Your task to perform on an android device: uninstall "Chime – Mobile Banking" Image 0: 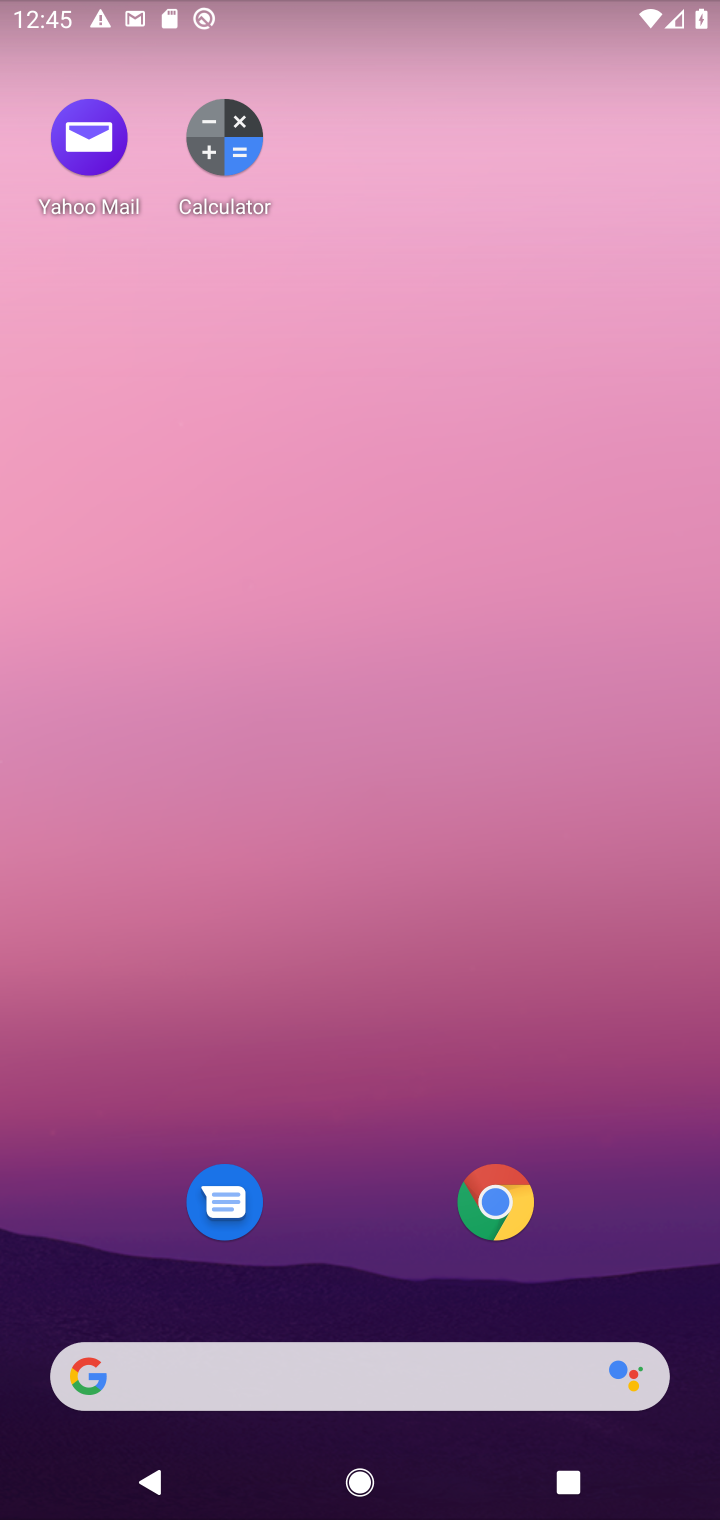
Step 0: press home button
Your task to perform on an android device: uninstall "Chime – Mobile Banking" Image 1: 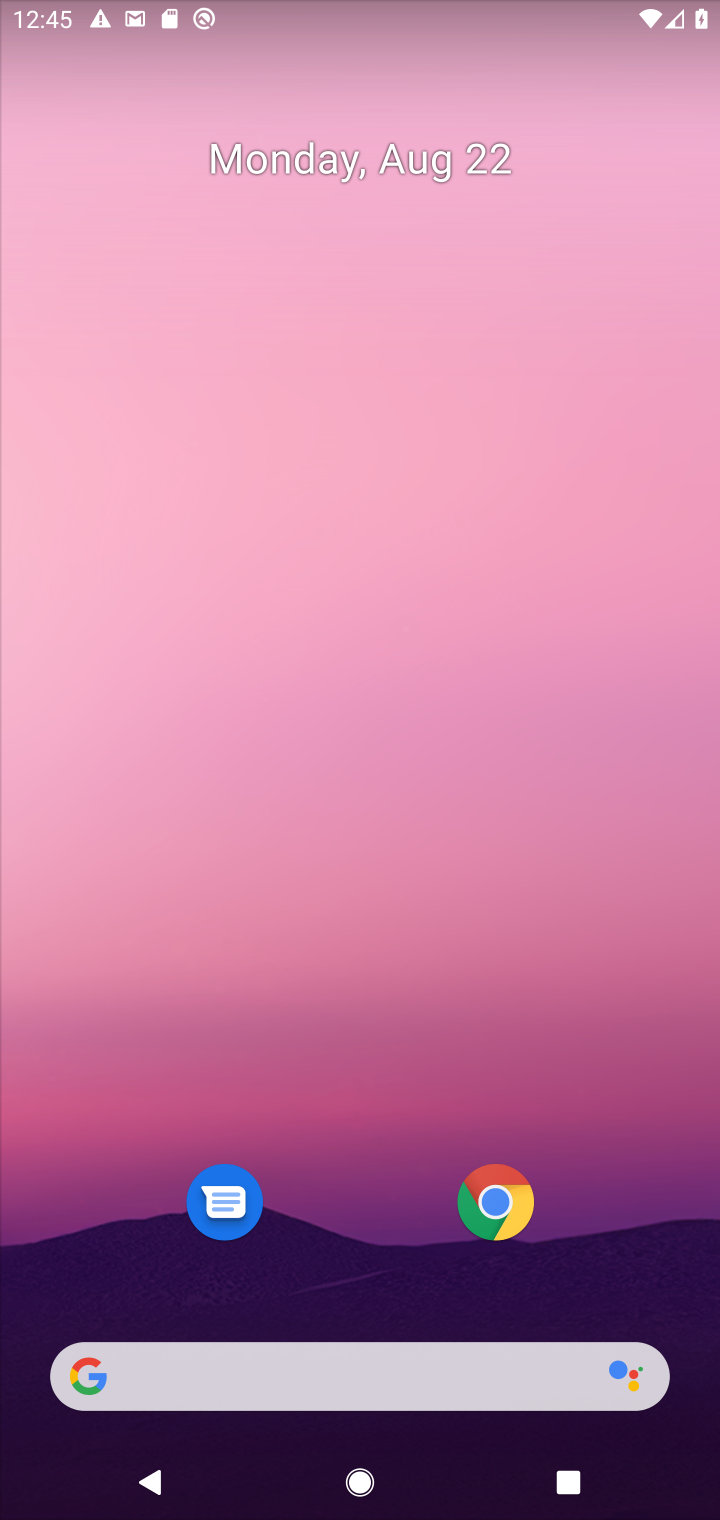
Step 1: drag from (370, 1290) to (358, 63)
Your task to perform on an android device: uninstall "Chime – Mobile Banking" Image 2: 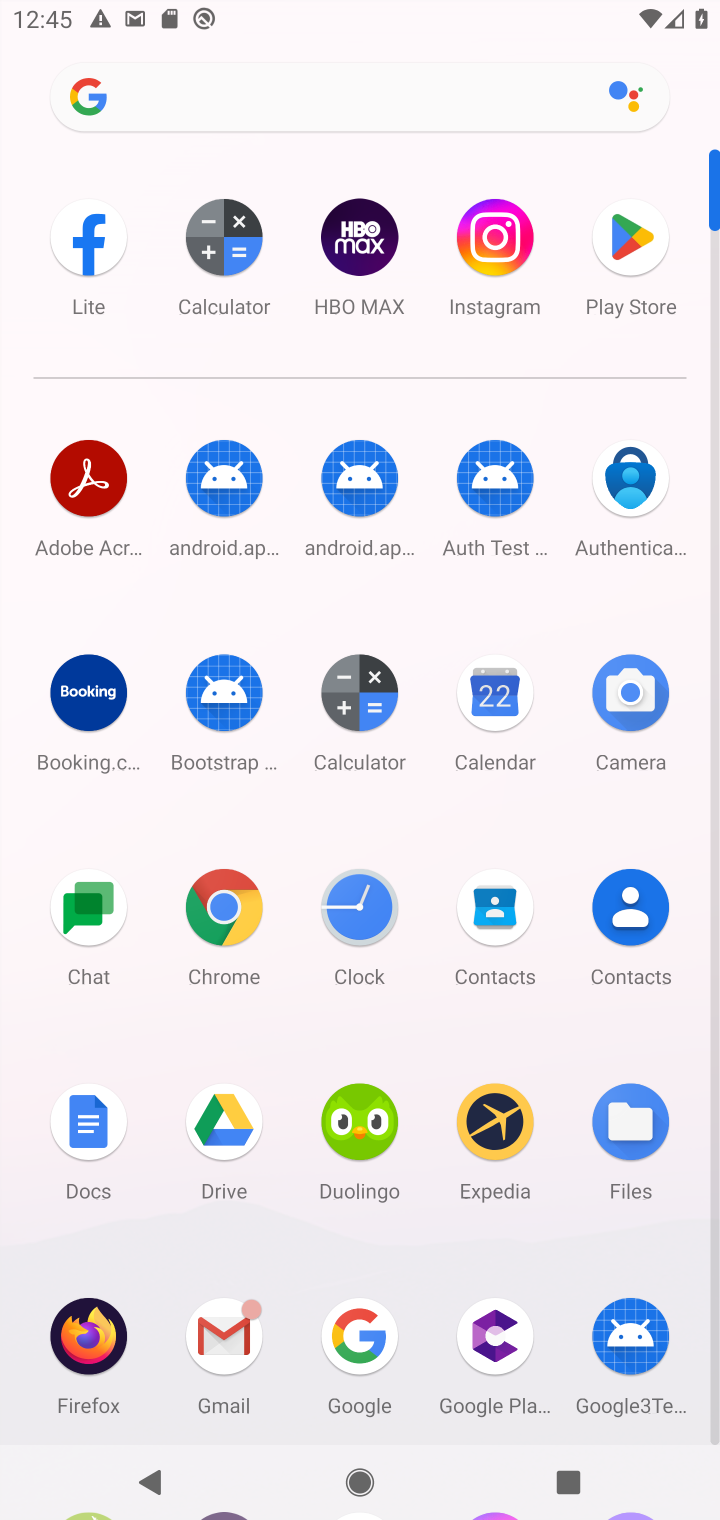
Step 2: click (636, 242)
Your task to perform on an android device: uninstall "Chime – Mobile Banking" Image 3: 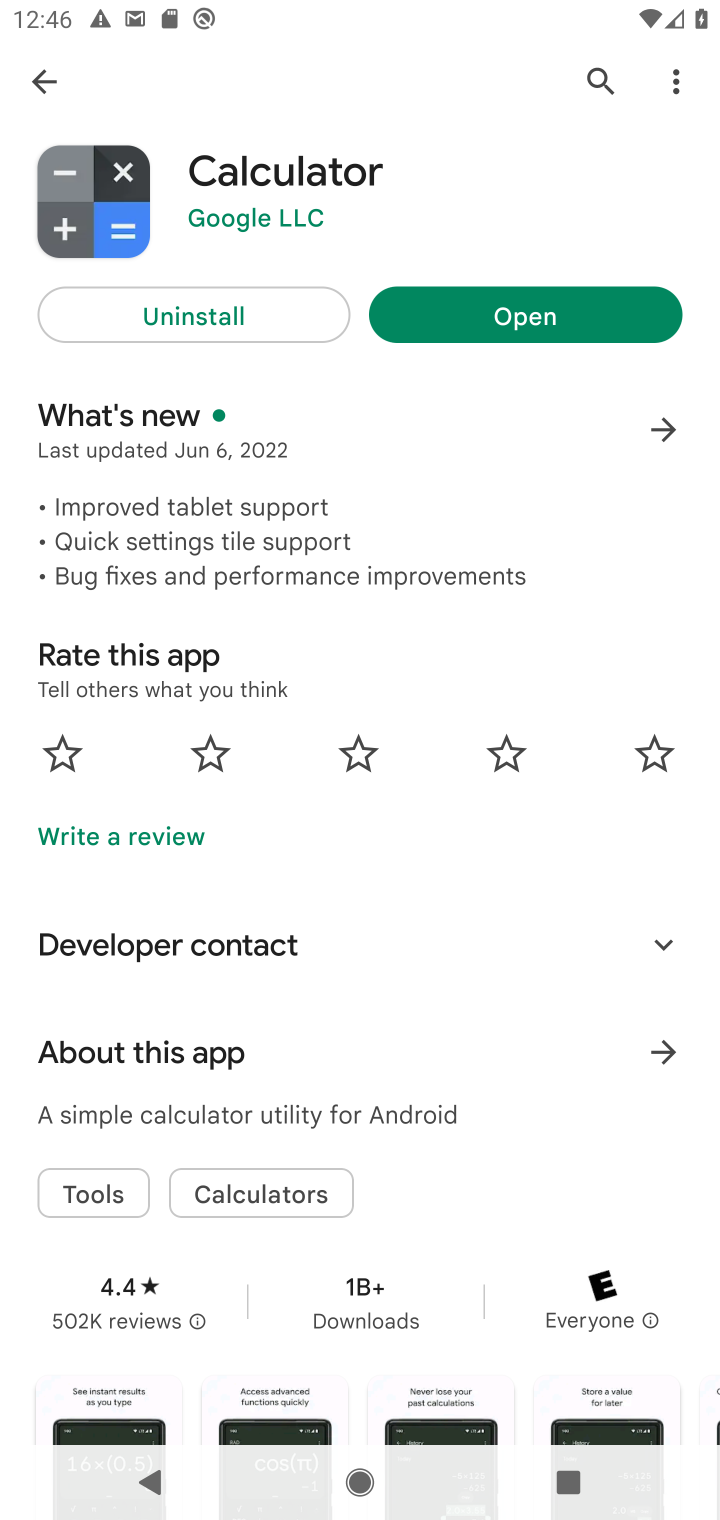
Step 3: click (583, 82)
Your task to perform on an android device: uninstall "Chime – Mobile Banking" Image 4: 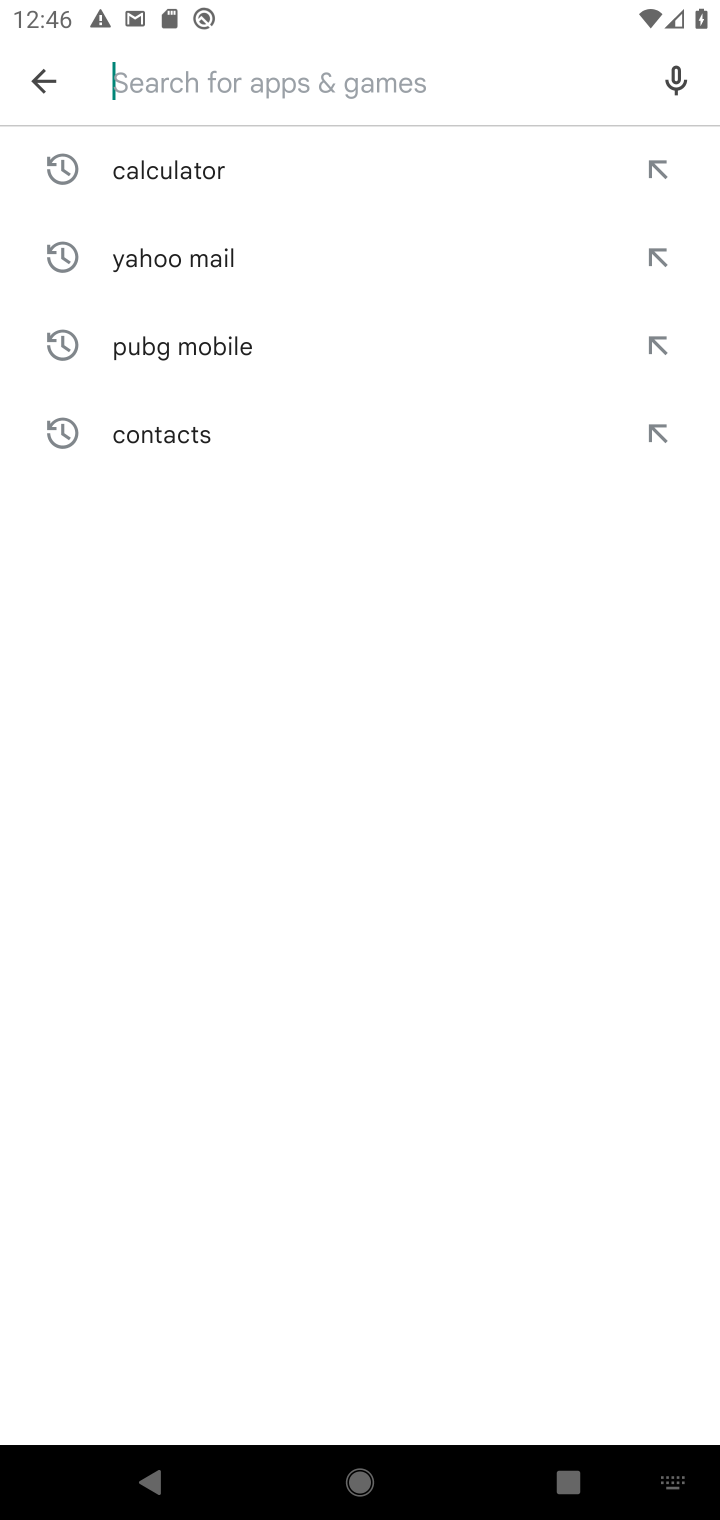
Step 4: type "Chime – Mobile Banking"
Your task to perform on an android device: uninstall "Chime – Mobile Banking" Image 5: 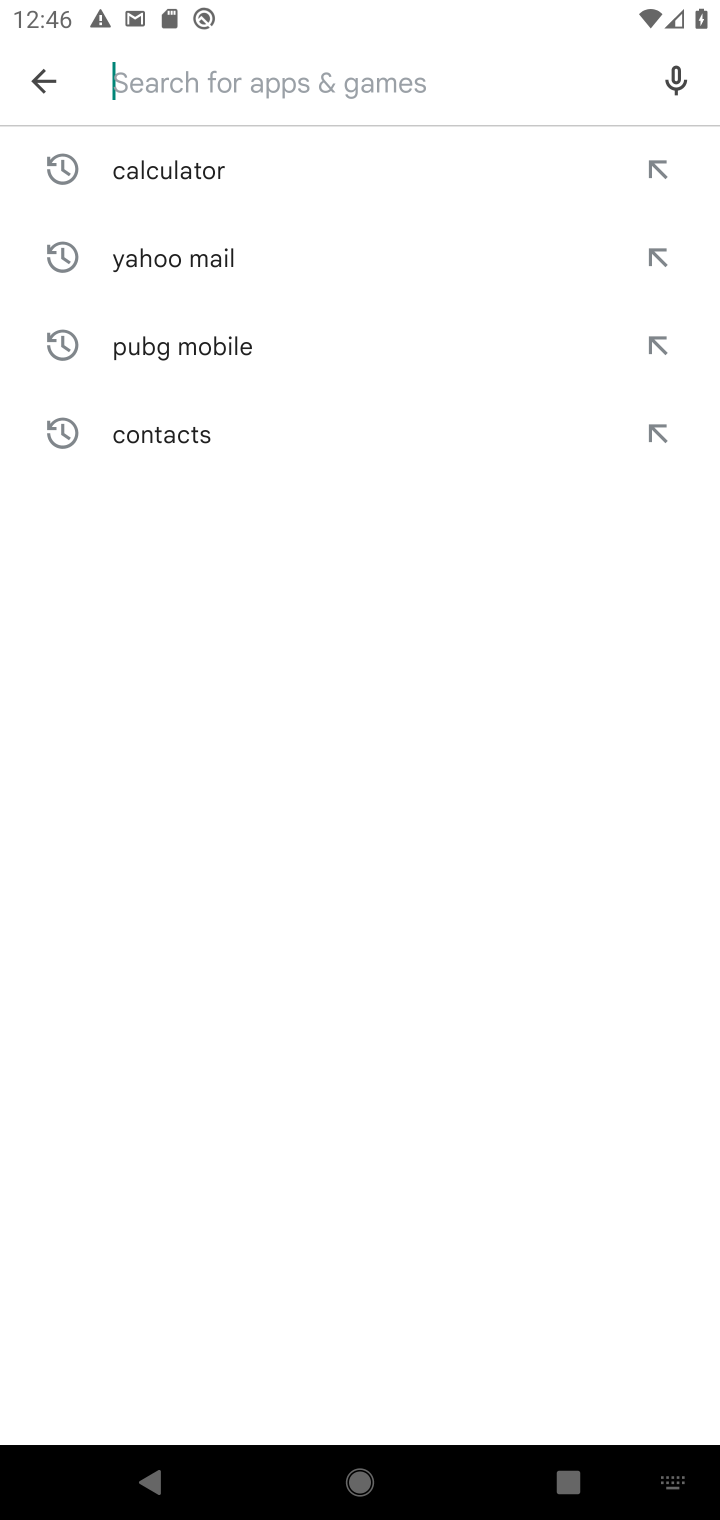
Step 5: type "Chime – Mobile Banking"
Your task to perform on an android device: uninstall "Chime – Mobile Banking" Image 6: 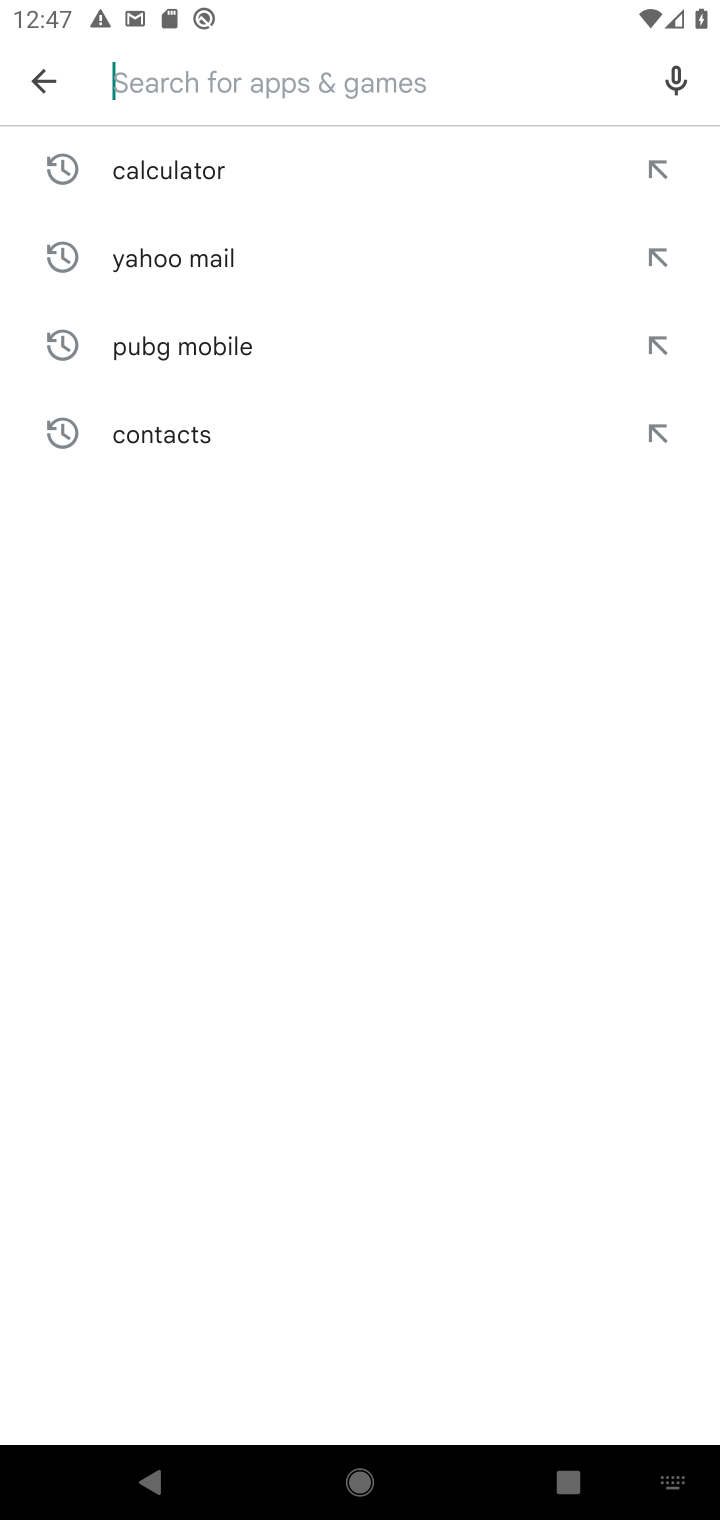
Step 6: type "Chime"
Your task to perform on an android device: uninstall "Chime – Mobile Banking" Image 7: 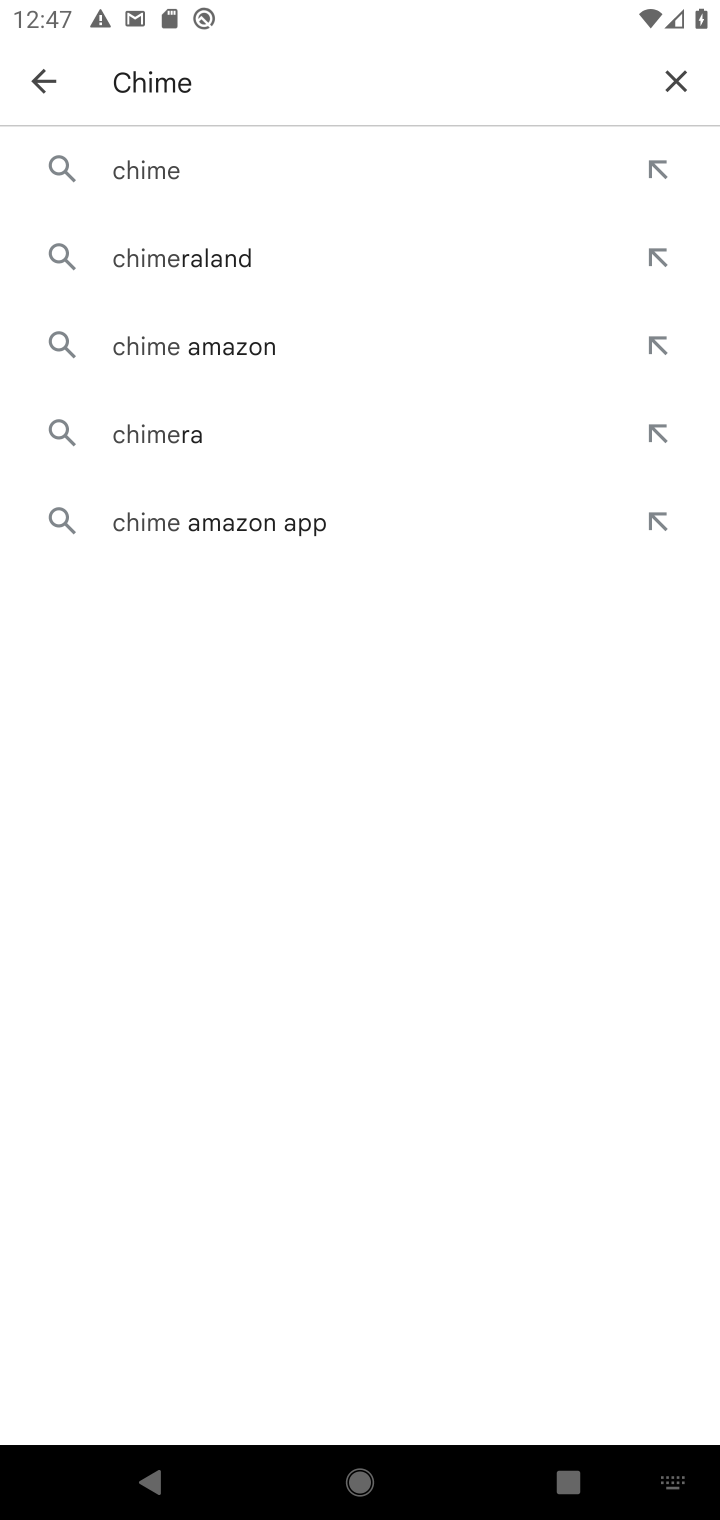
Step 7: type "– Mobile Banking"
Your task to perform on an android device: uninstall "Chime – Mobile Banking" Image 8: 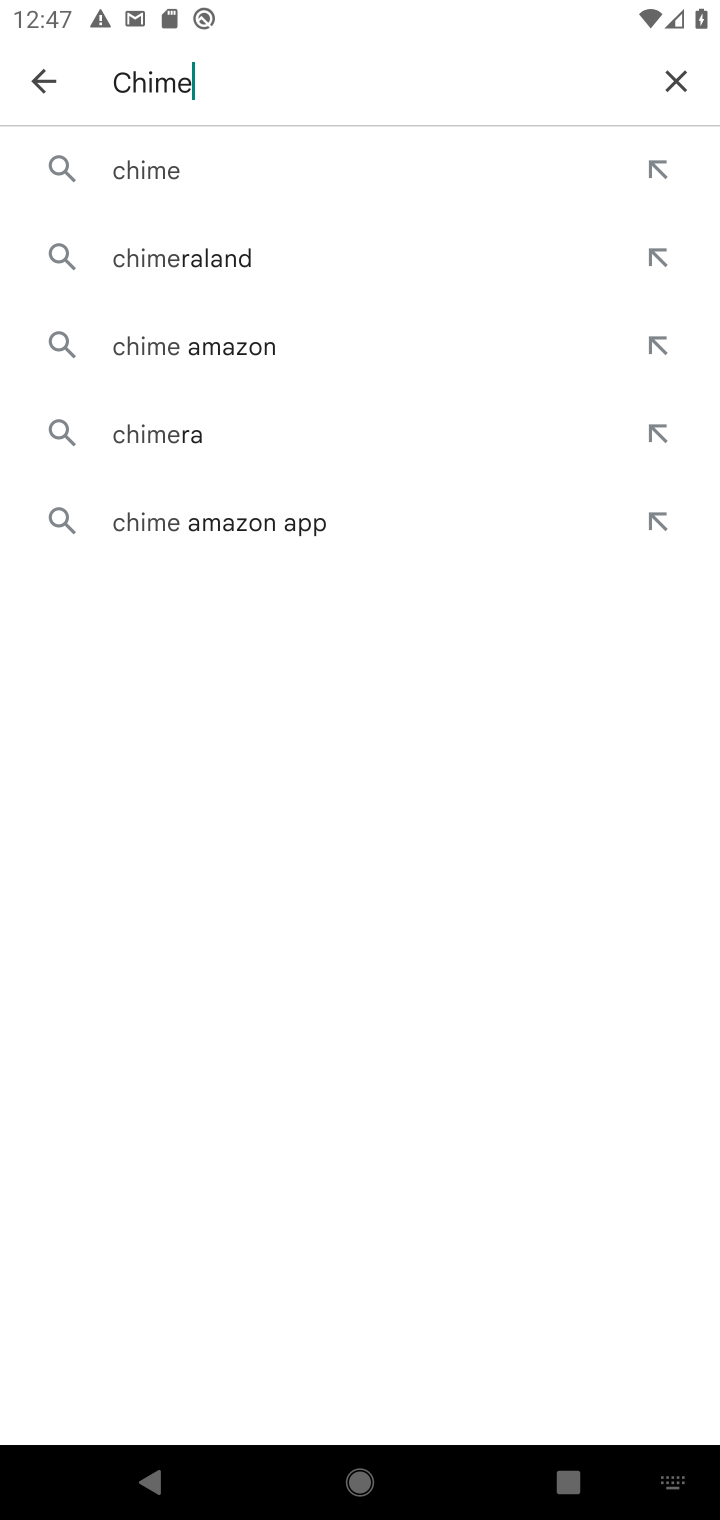
Step 8: click (151, 161)
Your task to perform on an android device: uninstall "Chime – Mobile Banking" Image 9: 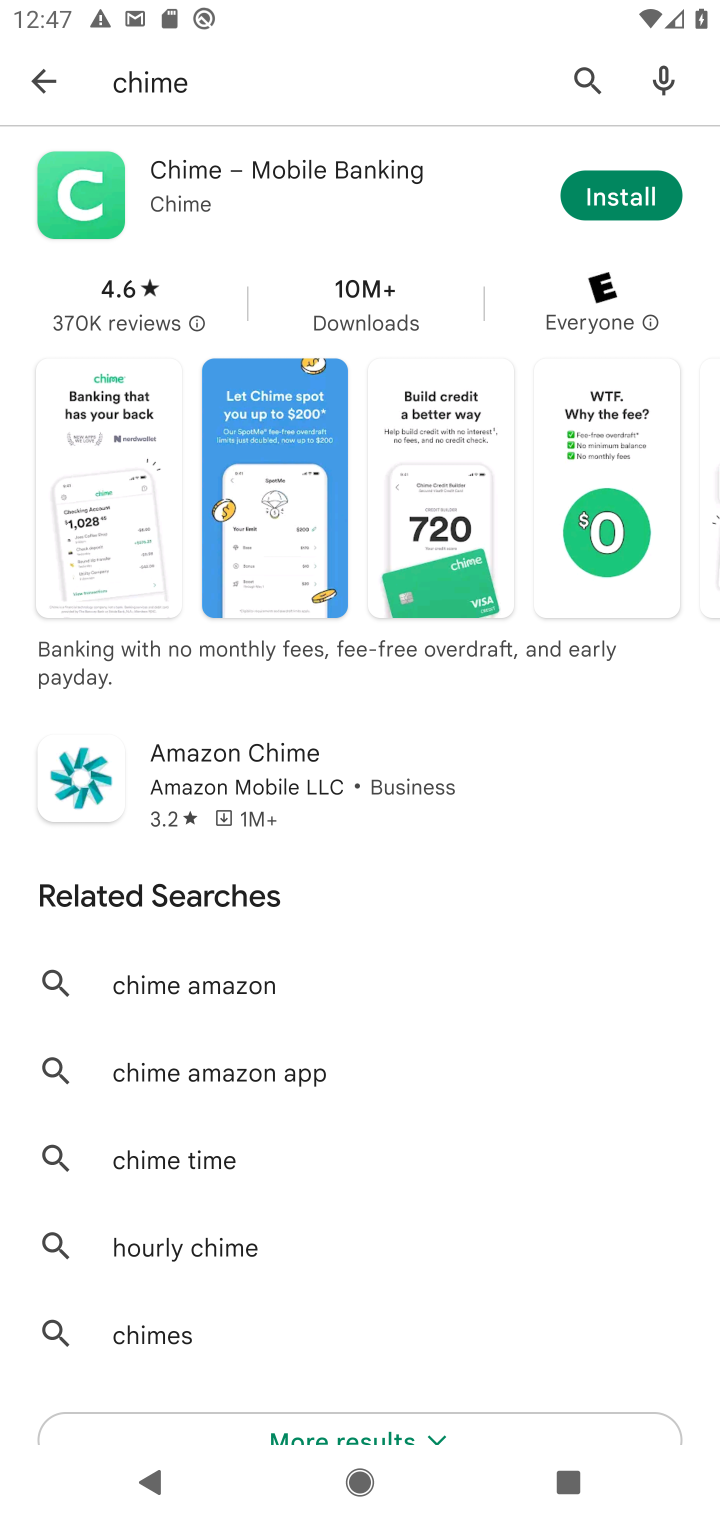
Step 9: click (345, 163)
Your task to perform on an android device: uninstall "Chime – Mobile Banking" Image 10: 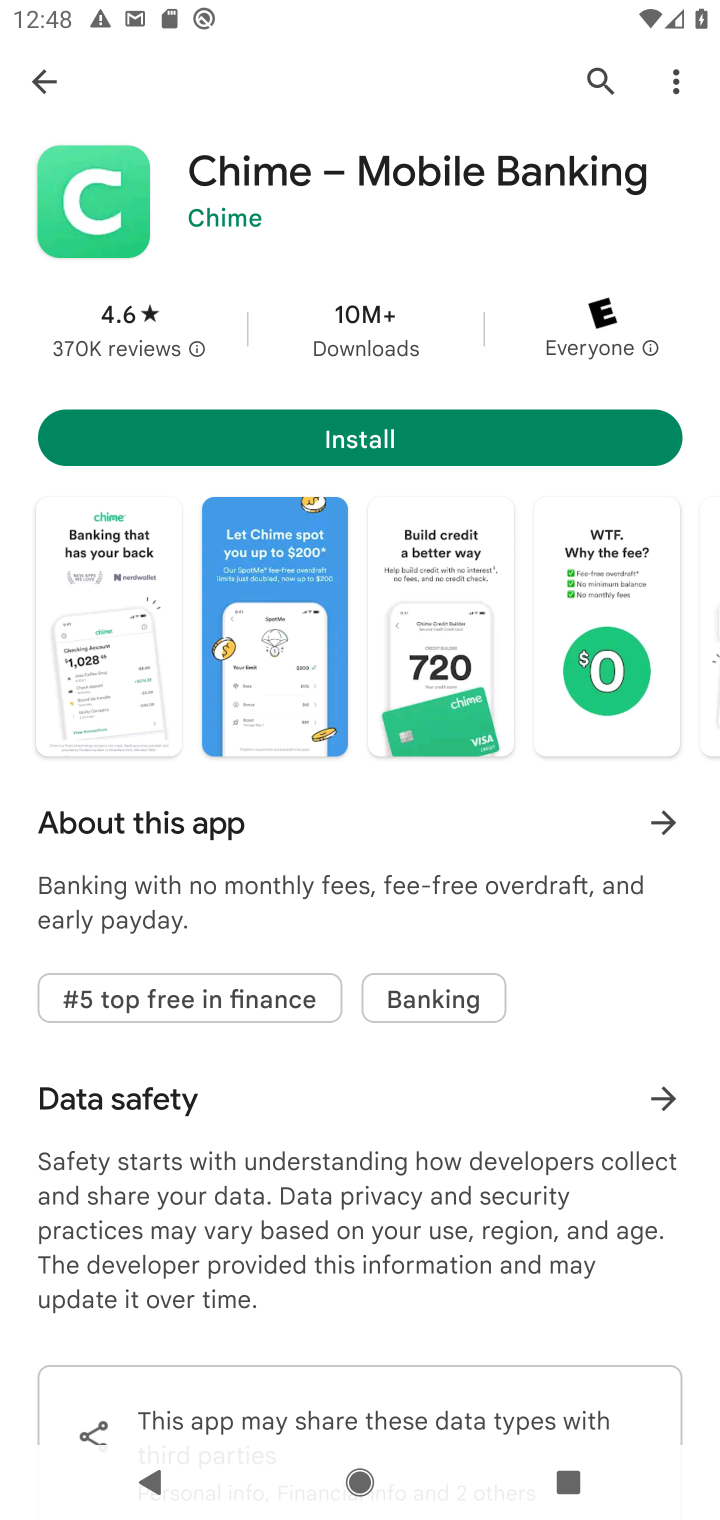
Step 10: task complete